Your task to perform on an android device: toggle notification dots Image 0: 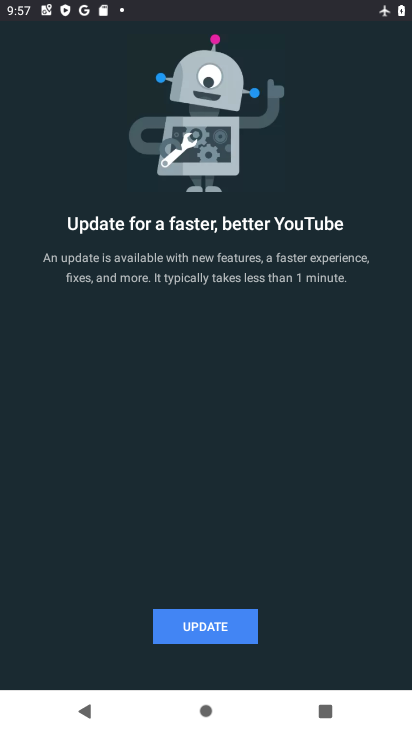
Step 0: press home button
Your task to perform on an android device: toggle notification dots Image 1: 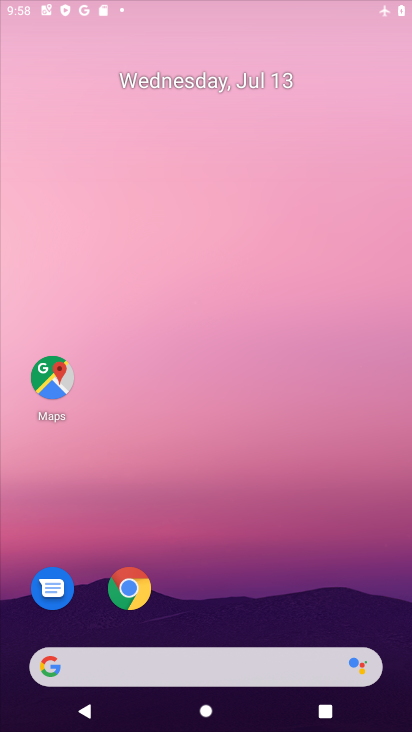
Step 1: drag from (249, 608) to (284, 103)
Your task to perform on an android device: toggle notification dots Image 2: 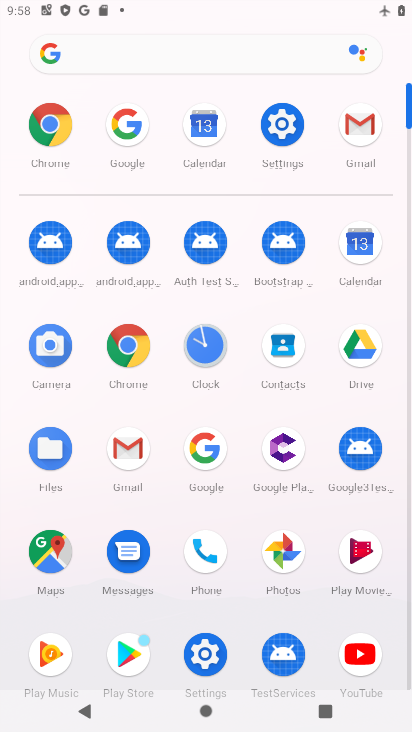
Step 2: click (277, 120)
Your task to perform on an android device: toggle notification dots Image 3: 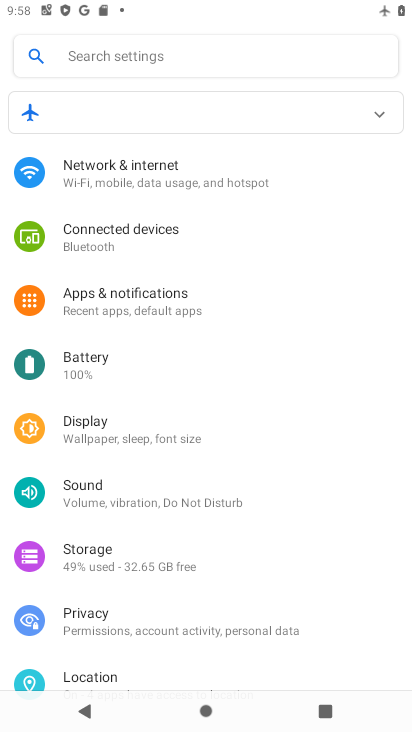
Step 3: click (136, 296)
Your task to perform on an android device: toggle notification dots Image 4: 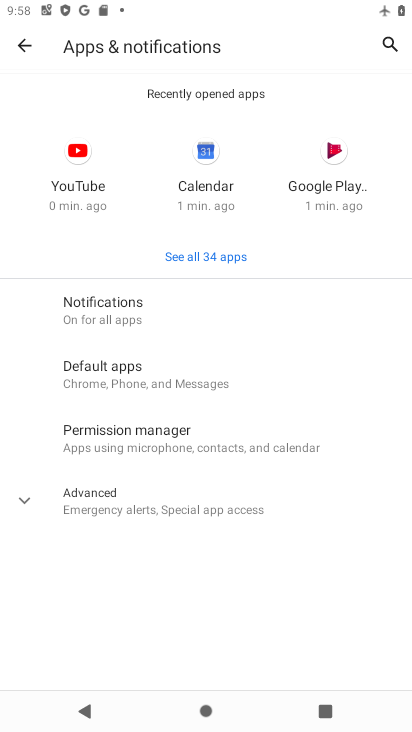
Step 4: click (132, 300)
Your task to perform on an android device: toggle notification dots Image 5: 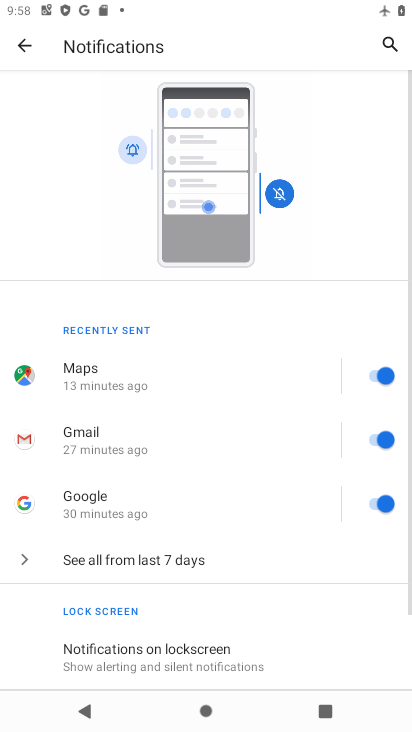
Step 5: drag from (172, 614) to (168, 236)
Your task to perform on an android device: toggle notification dots Image 6: 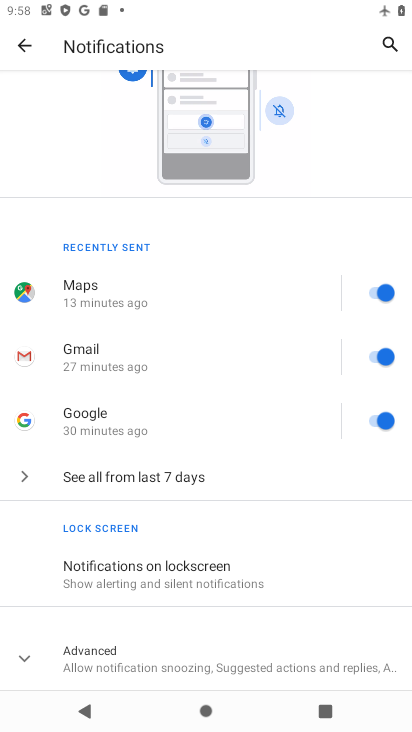
Step 6: click (86, 663)
Your task to perform on an android device: toggle notification dots Image 7: 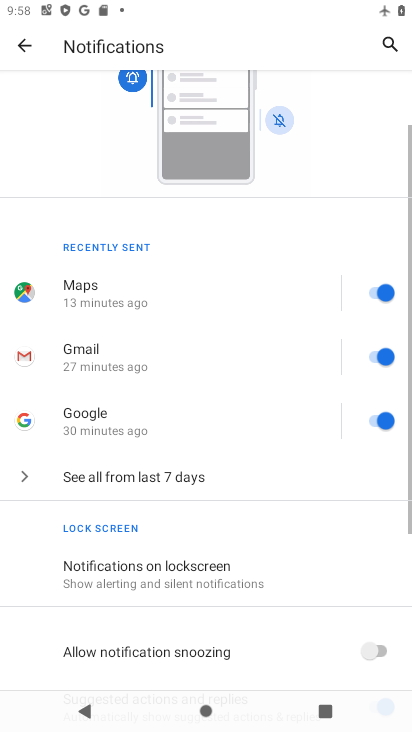
Step 7: drag from (279, 628) to (276, 353)
Your task to perform on an android device: toggle notification dots Image 8: 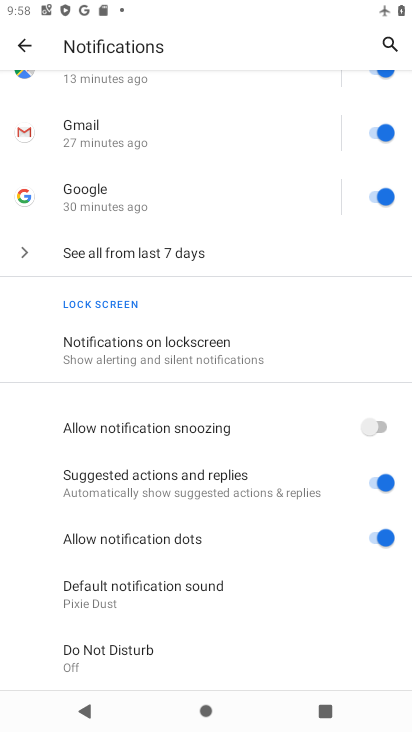
Step 8: click (377, 538)
Your task to perform on an android device: toggle notification dots Image 9: 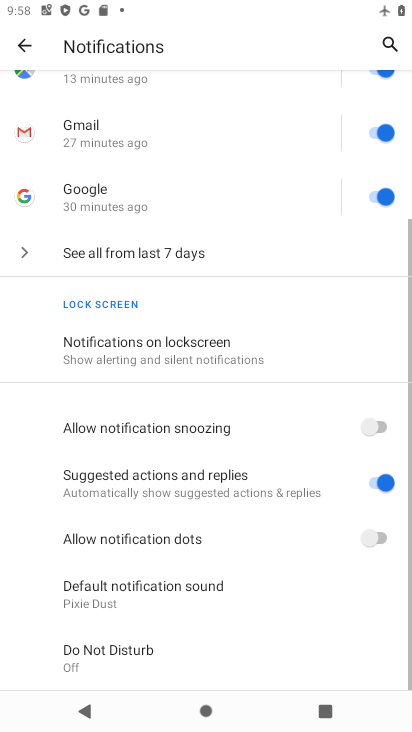
Step 9: task complete